Your task to perform on an android device: turn off javascript in the chrome app Image 0: 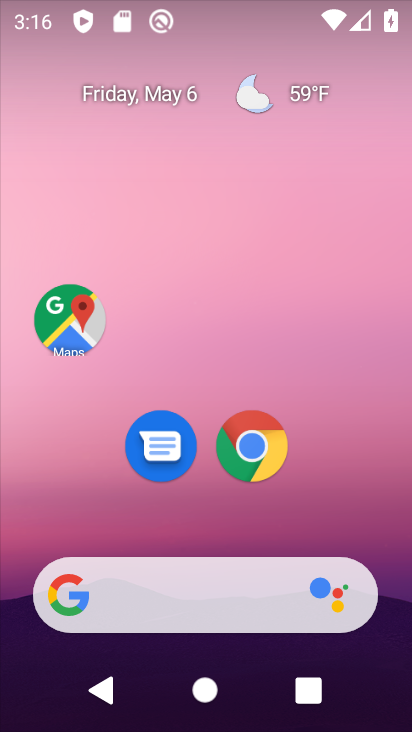
Step 0: click (267, 438)
Your task to perform on an android device: turn off javascript in the chrome app Image 1: 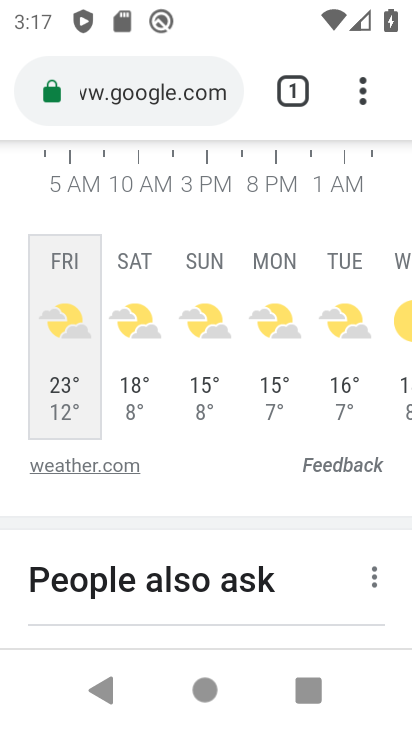
Step 1: drag from (360, 100) to (172, 500)
Your task to perform on an android device: turn off javascript in the chrome app Image 2: 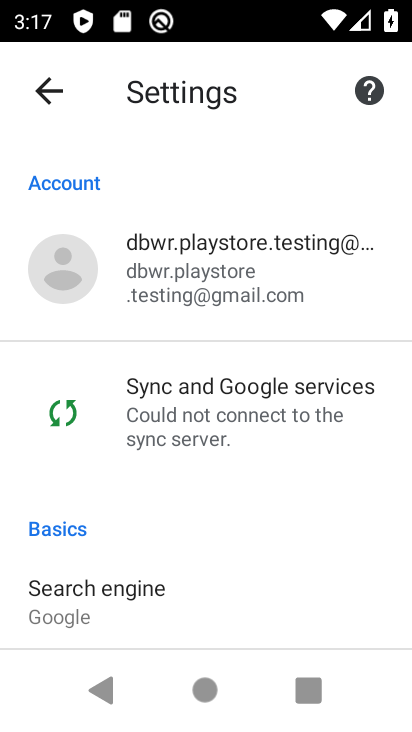
Step 2: drag from (190, 498) to (202, 295)
Your task to perform on an android device: turn off javascript in the chrome app Image 3: 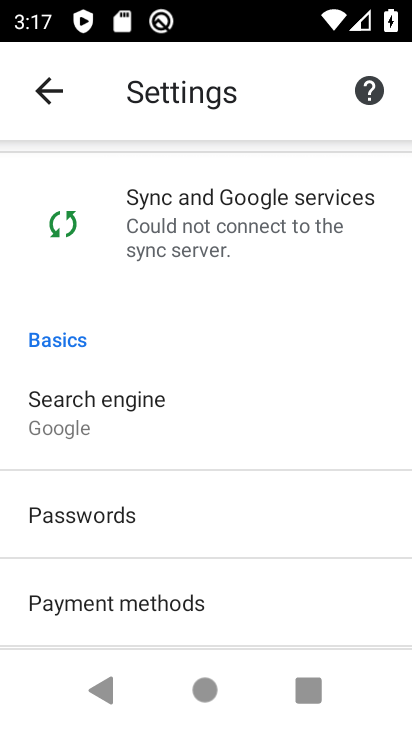
Step 3: drag from (195, 559) to (249, 252)
Your task to perform on an android device: turn off javascript in the chrome app Image 4: 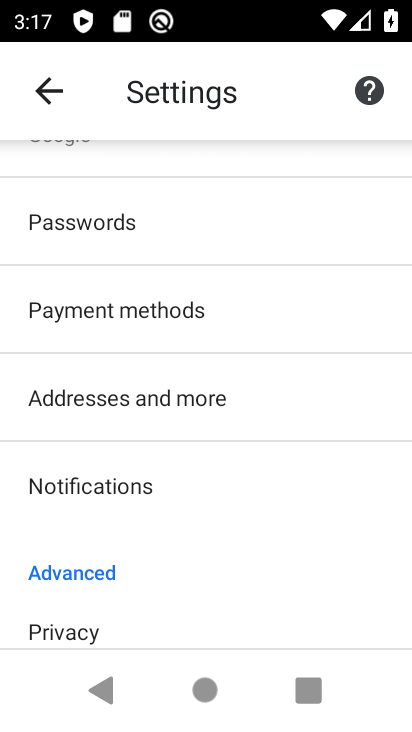
Step 4: drag from (216, 535) to (257, 295)
Your task to perform on an android device: turn off javascript in the chrome app Image 5: 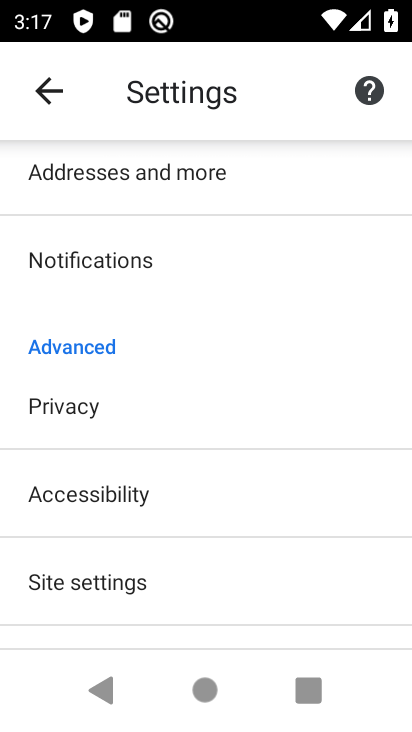
Step 5: click (133, 589)
Your task to perform on an android device: turn off javascript in the chrome app Image 6: 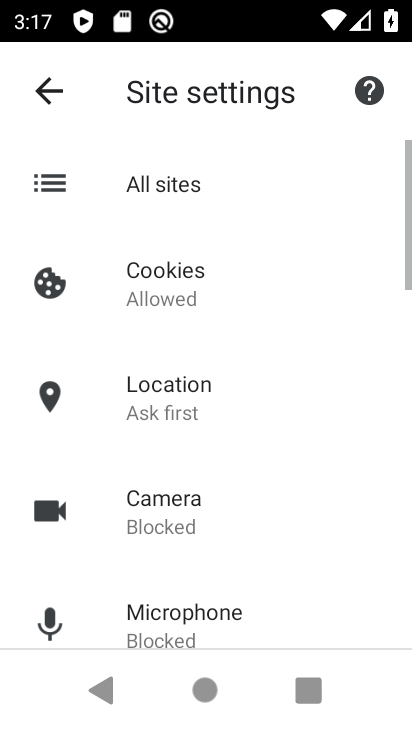
Step 6: drag from (227, 596) to (272, 274)
Your task to perform on an android device: turn off javascript in the chrome app Image 7: 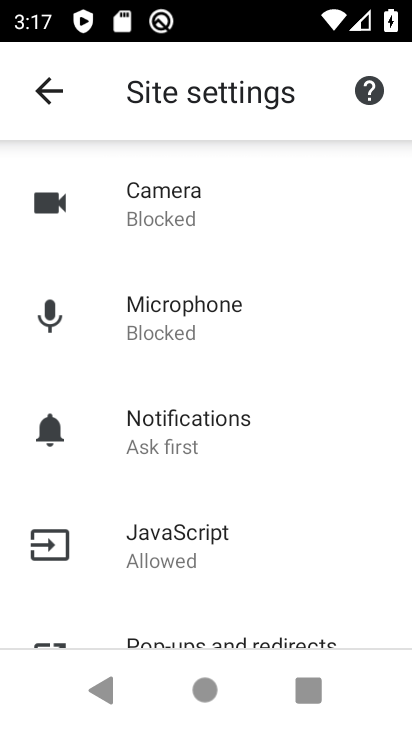
Step 7: click (191, 540)
Your task to perform on an android device: turn off javascript in the chrome app Image 8: 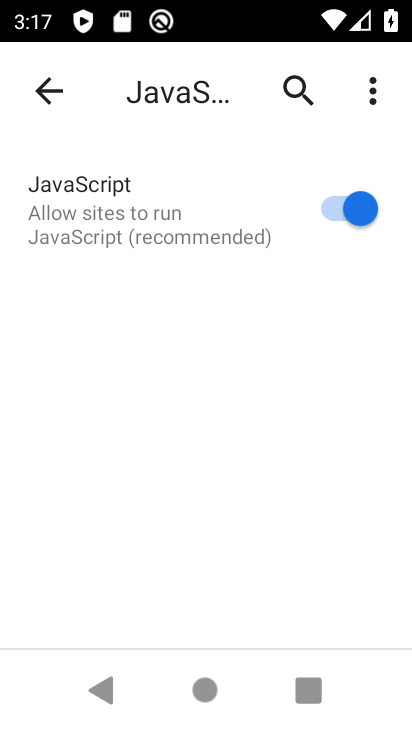
Step 8: click (360, 203)
Your task to perform on an android device: turn off javascript in the chrome app Image 9: 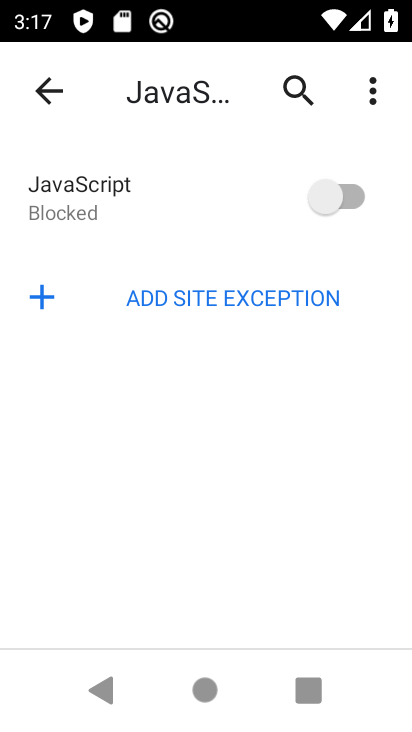
Step 9: task complete